Your task to perform on an android device: turn on airplane mode Image 0: 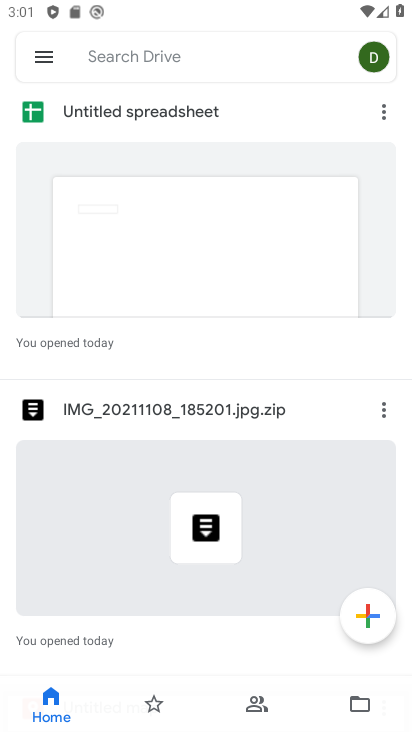
Step 0: press home button
Your task to perform on an android device: turn on airplane mode Image 1: 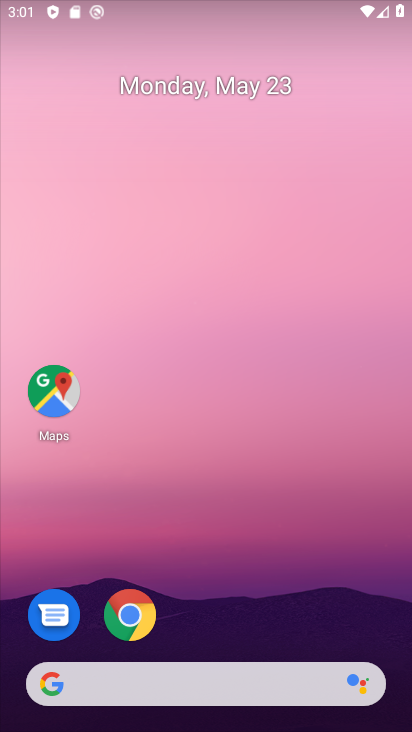
Step 1: drag from (268, 601) to (249, 282)
Your task to perform on an android device: turn on airplane mode Image 2: 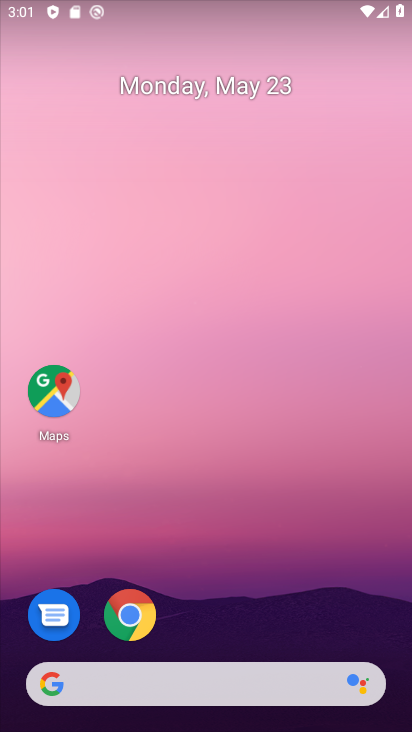
Step 2: drag from (296, 594) to (258, 310)
Your task to perform on an android device: turn on airplane mode Image 3: 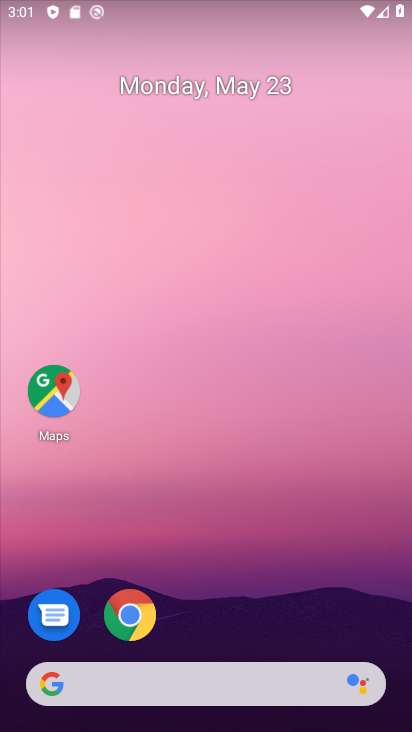
Step 3: drag from (272, 499) to (242, 196)
Your task to perform on an android device: turn on airplane mode Image 4: 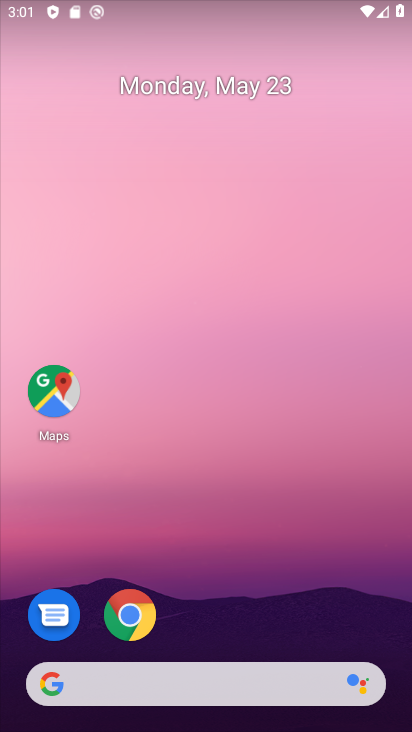
Step 4: drag from (223, 656) to (212, 23)
Your task to perform on an android device: turn on airplane mode Image 5: 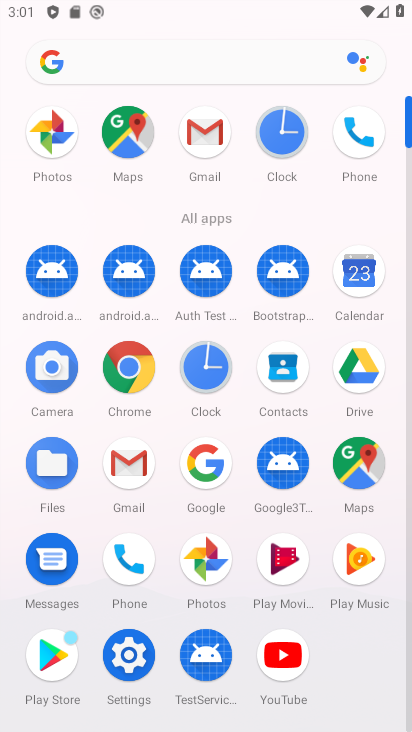
Step 5: click (146, 649)
Your task to perform on an android device: turn on airplane mode Image 6: 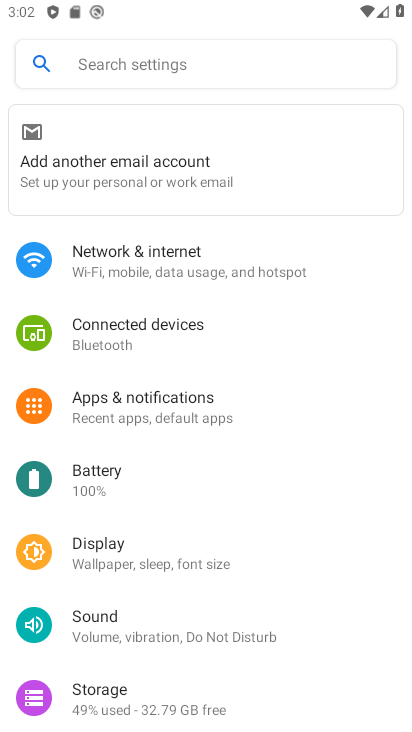
Step 6: click (188, 260)
Your task to perform on an android device: turn on airplane mode Image 7: 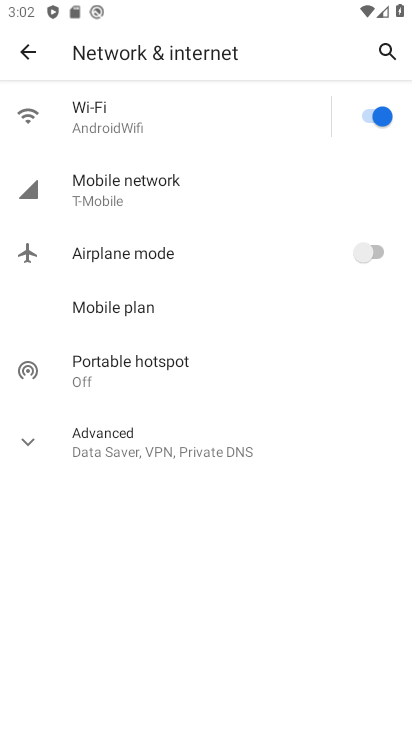
Step 7: click (382, 241)
Your task to perform on an android device: turn on airplane mode Image 8: 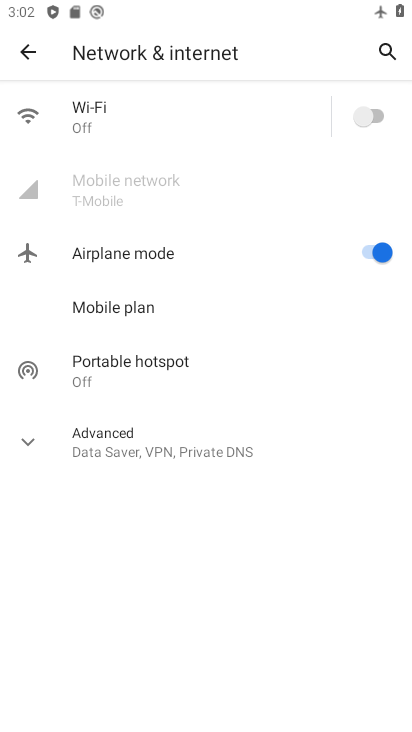
Step 8: task complete